Your task to perform on an android device: Go to wifi settings Image 0: 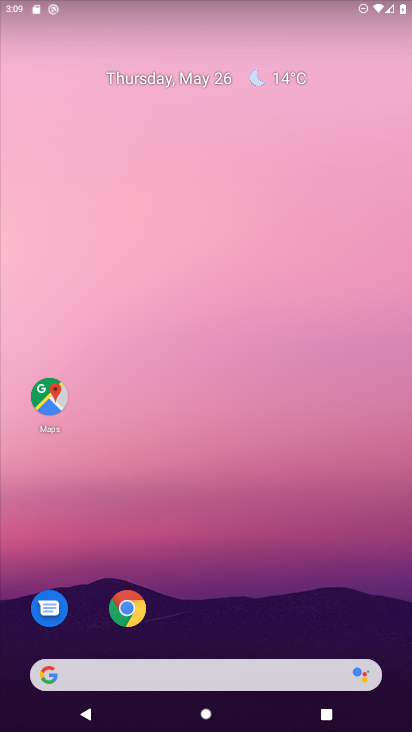
Step 0: drag from (289, 632) to (222, 151)
Your task to perform on an android device: Go to wifi settings Image 1: 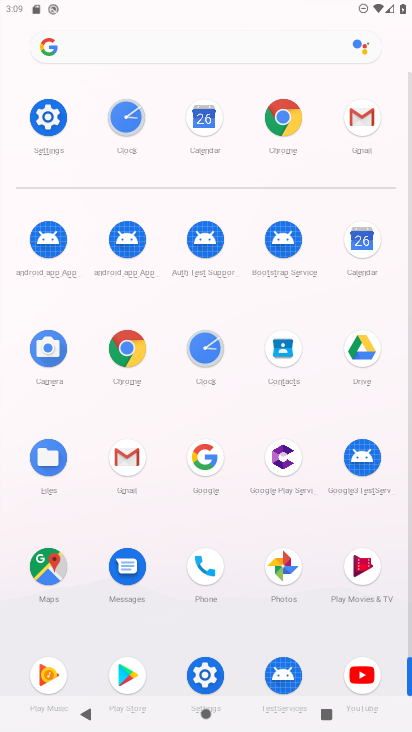
Step 1: click (46, 119)
Your task to perform on an android device: Go to wifi settings Image 2: 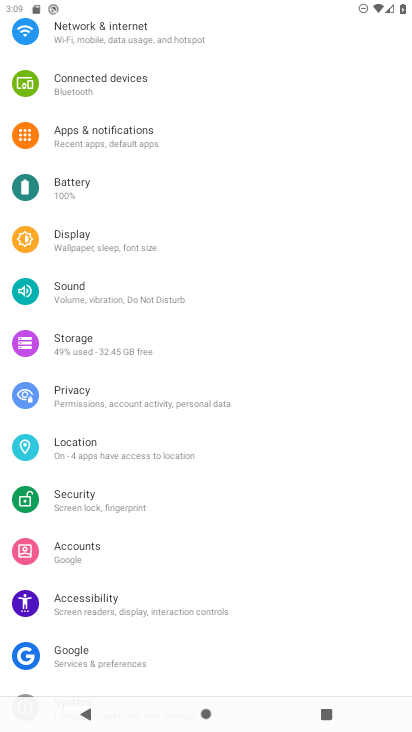
Step 2: drag from (198, 209) to (181, 578)
Your task to perform on an android device: Go to wifi settings Image 3: 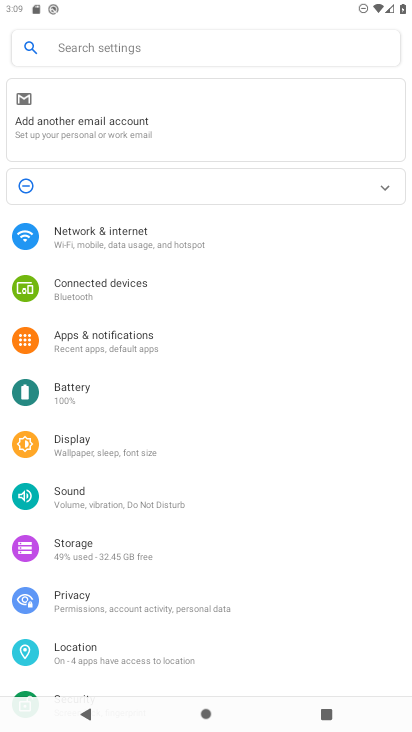
Step 3: click (104, 230)
Your task to perform on an android device: Go to wifi settings Image 4: 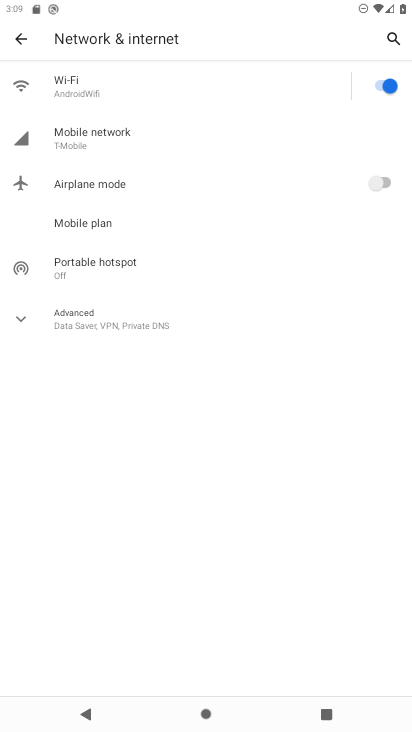
Step 4: click (157, 92)
Your task to perform on an android device: Go to wifi settings Image 5: 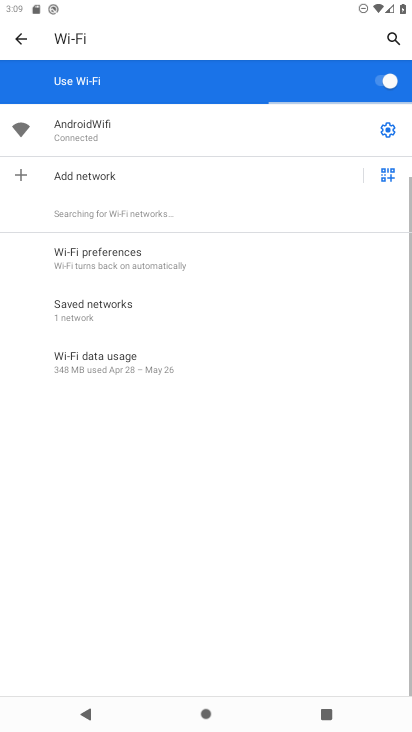
Step 5: task complete